Your task to perform on an android device: change text size in settings app Image 0: 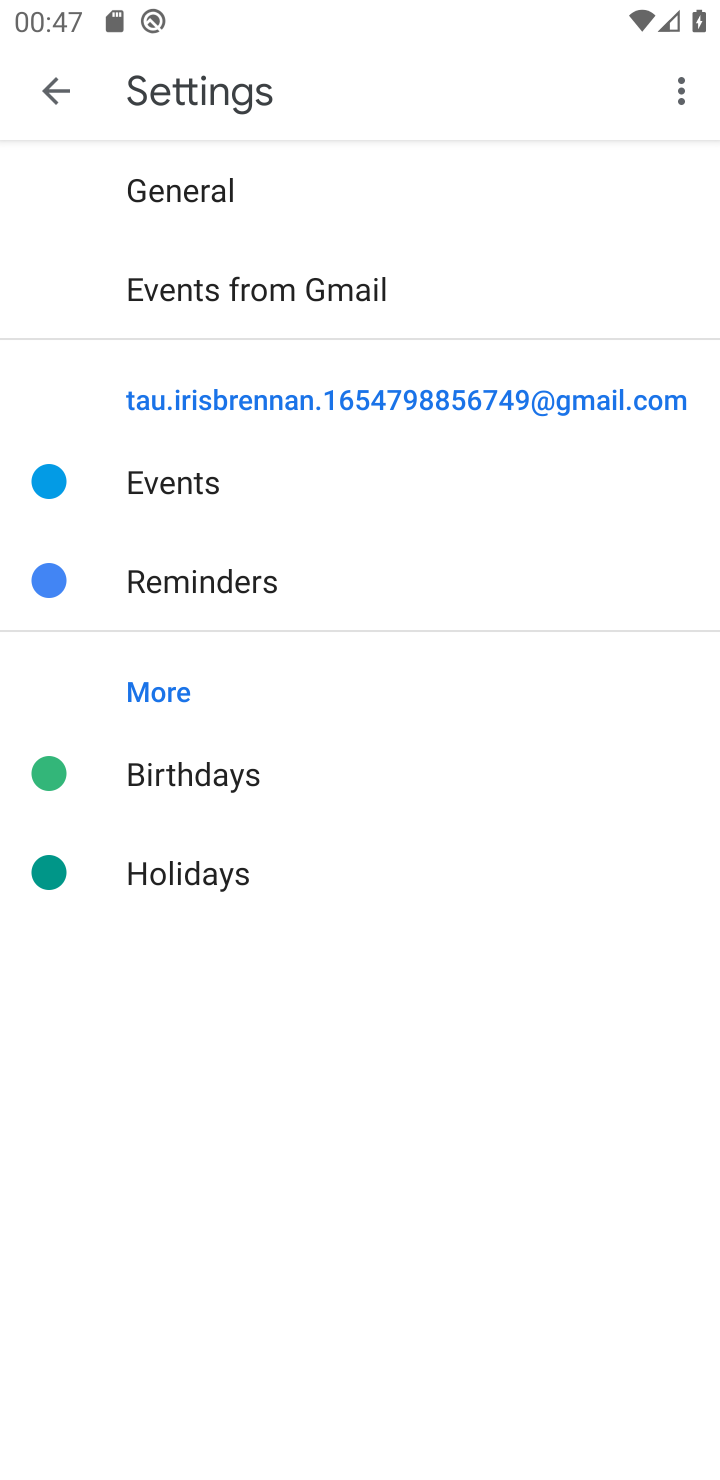
Step 0: press home button
Your task to perform on an android device: change text size in settings app Image 1: 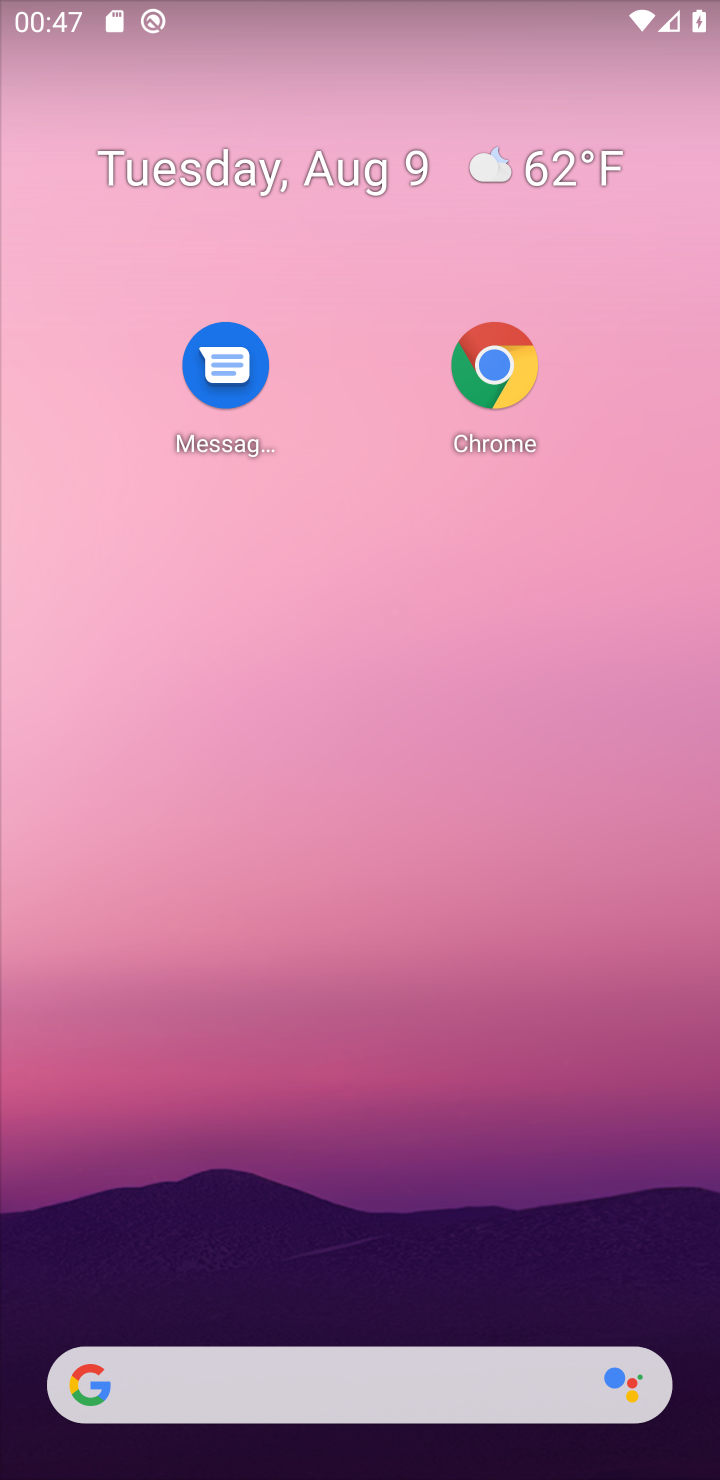
Step 1: drag from (317, 1153) to (376, 415)
Your task to perform on an android device: change text size in settings app Image 2: 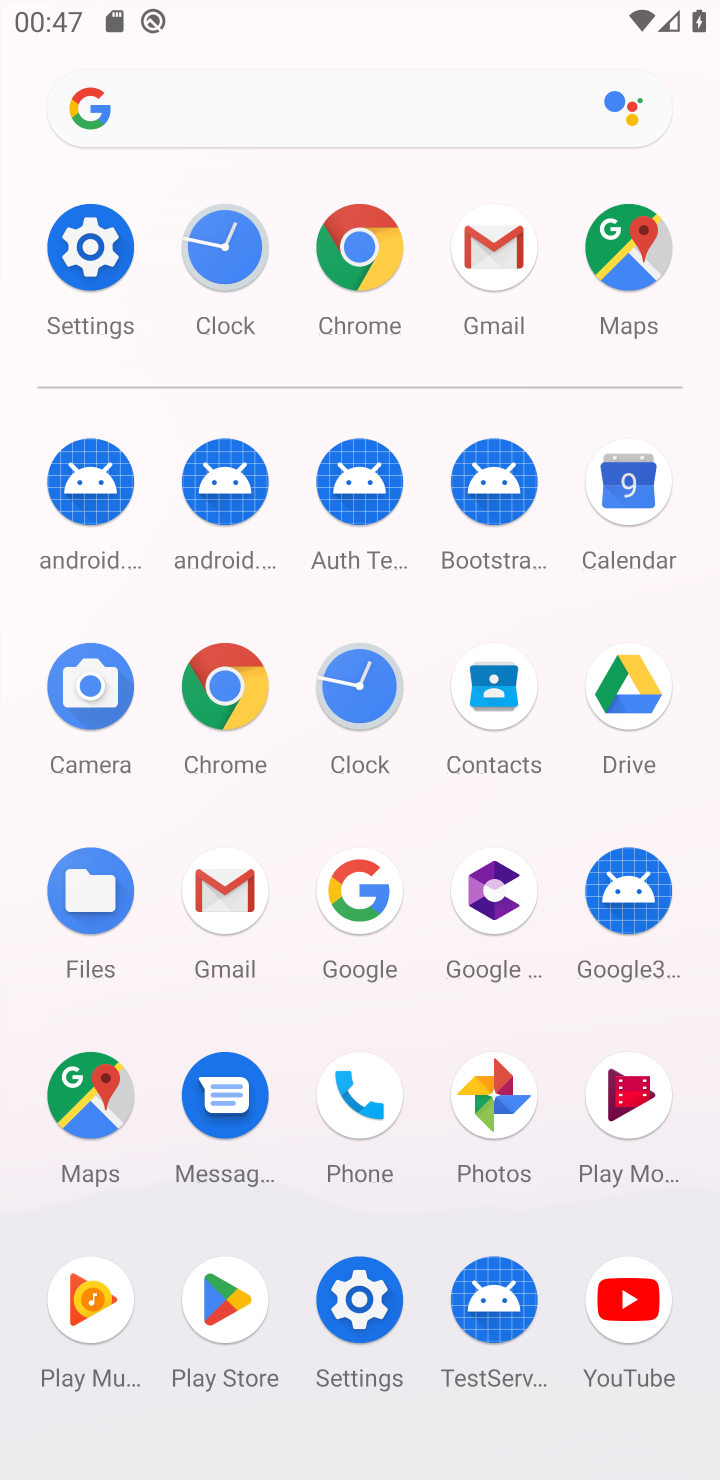
Step 2: click (77, 238)
Your task to perform on an android device: change text size in settings app Image 3: 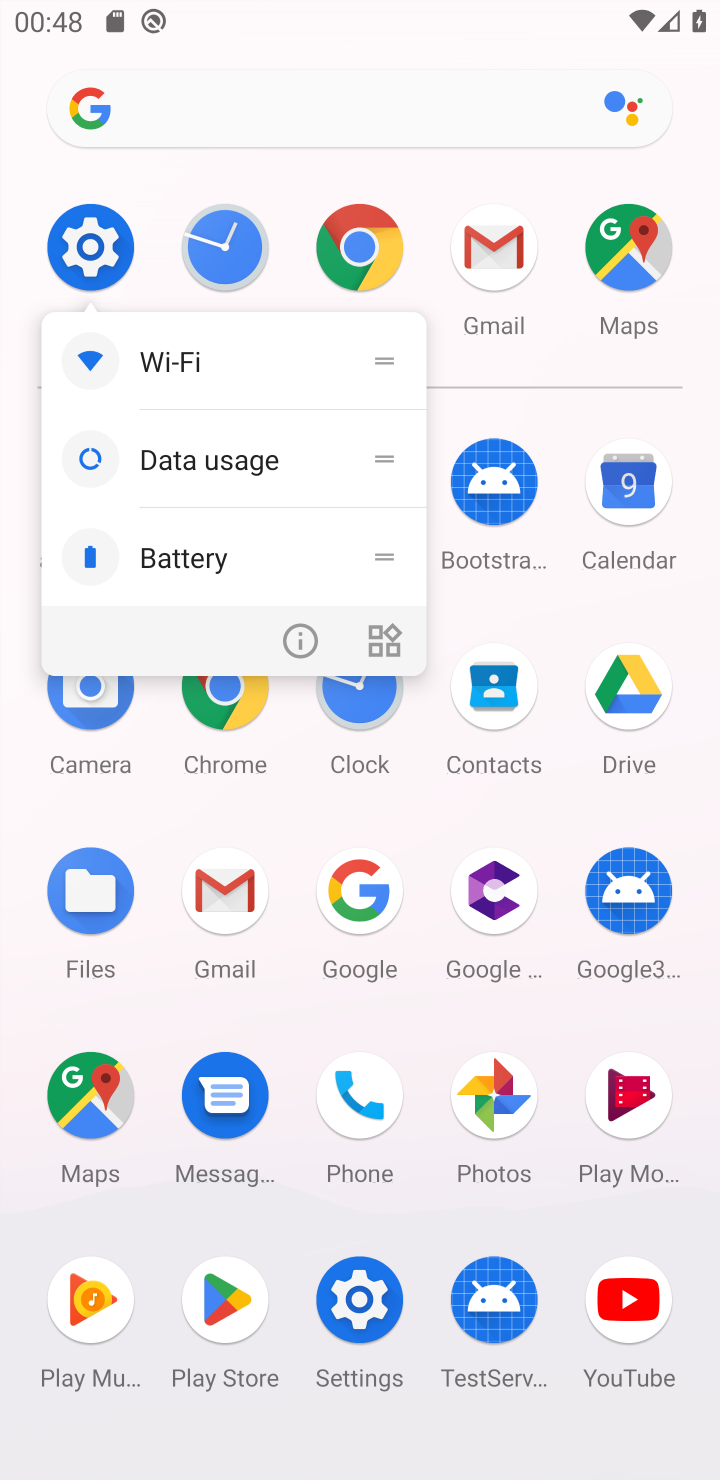
Step 3: click (99, 246)
Your task to perform on an android device: change text size in settings app Image 4: 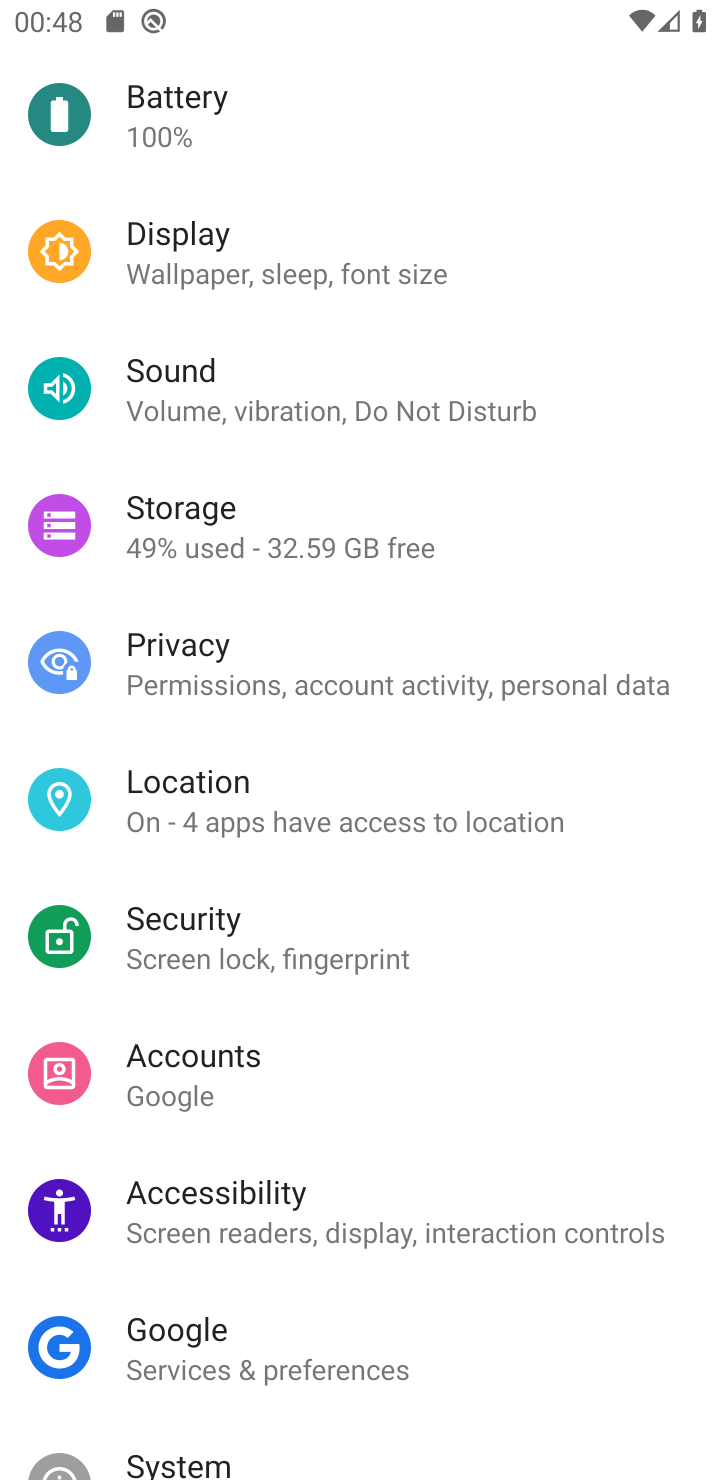
Step 4: drag from (187, 1298) to (256, 770)
Your task to perform on an android device: change text size in settings app Image 5: 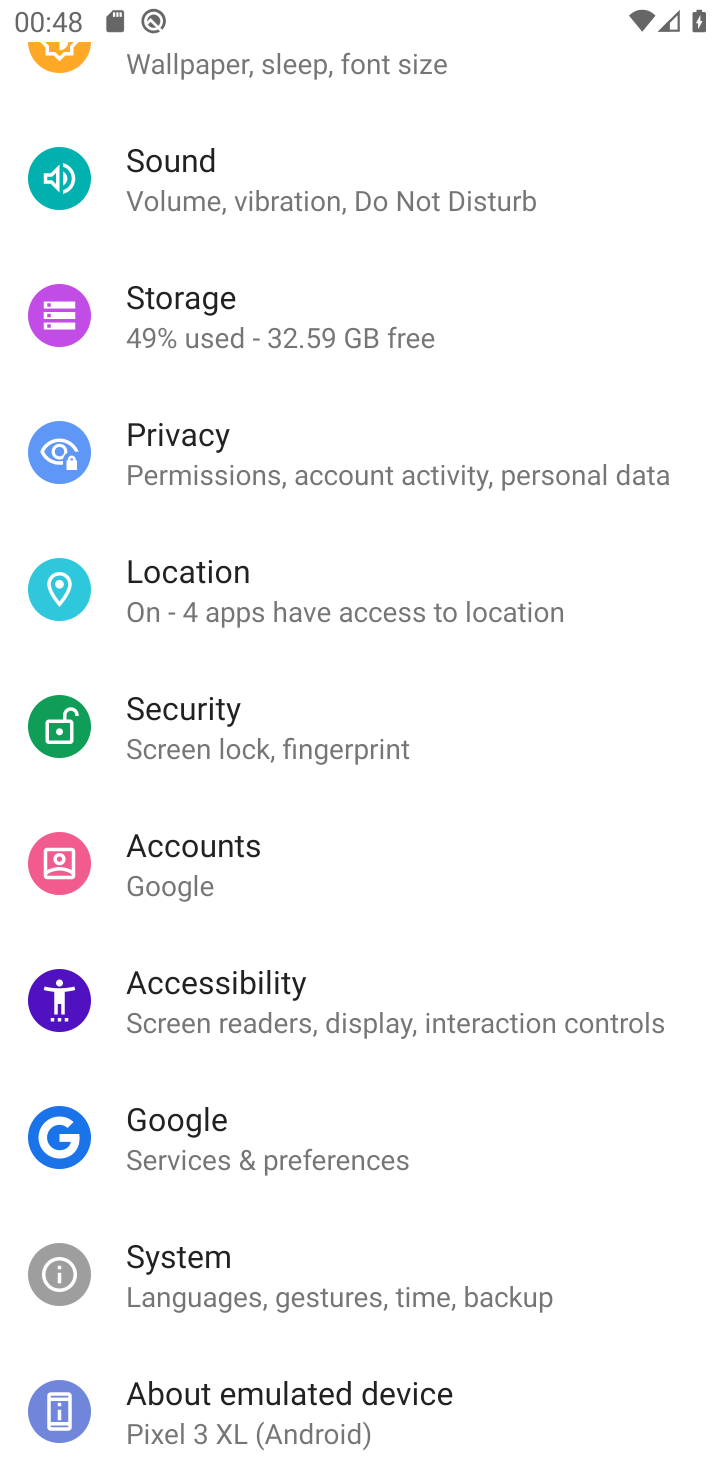
Step 5: click (189, 951)
Your task to perform on an android device: change text size in settings app Image 6: 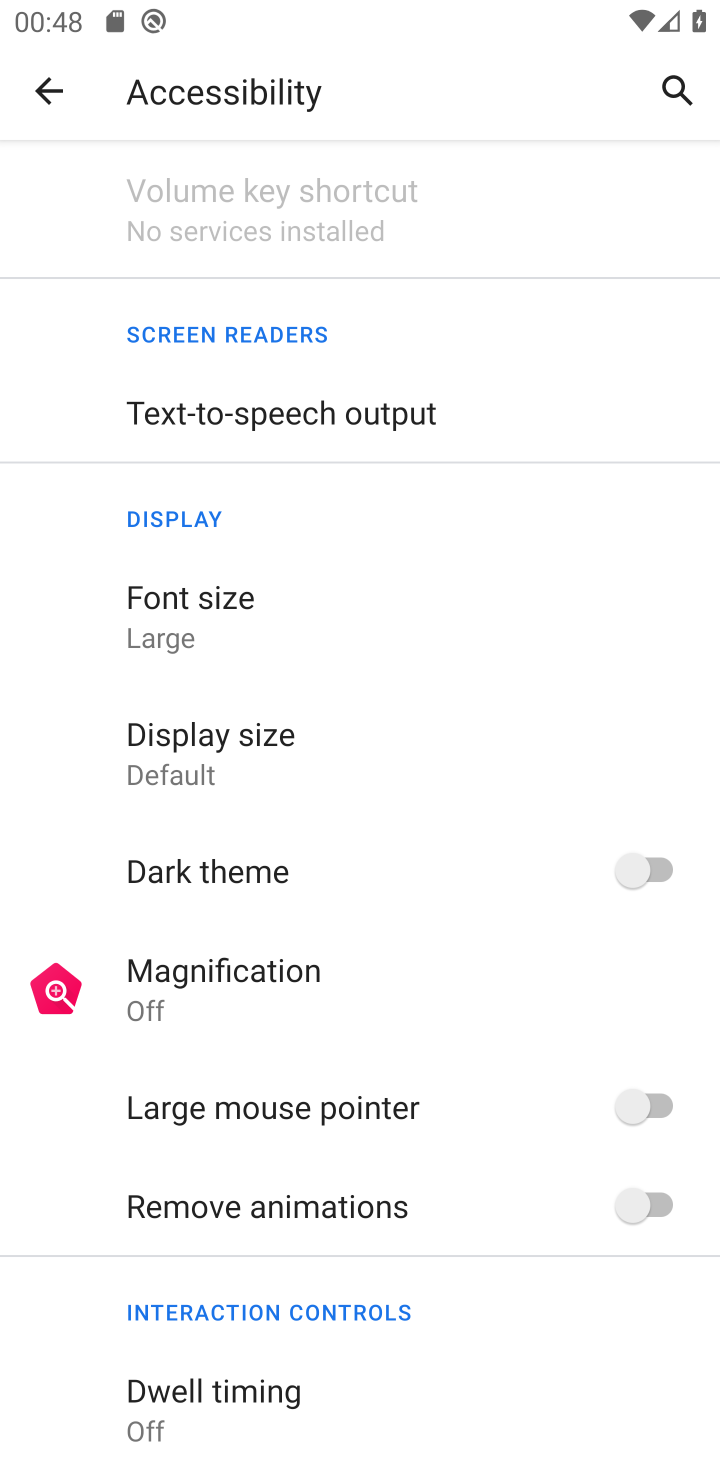
Step 6: click (179, 581)
Your task to perform on an android device: change text size in settings app Image 7: 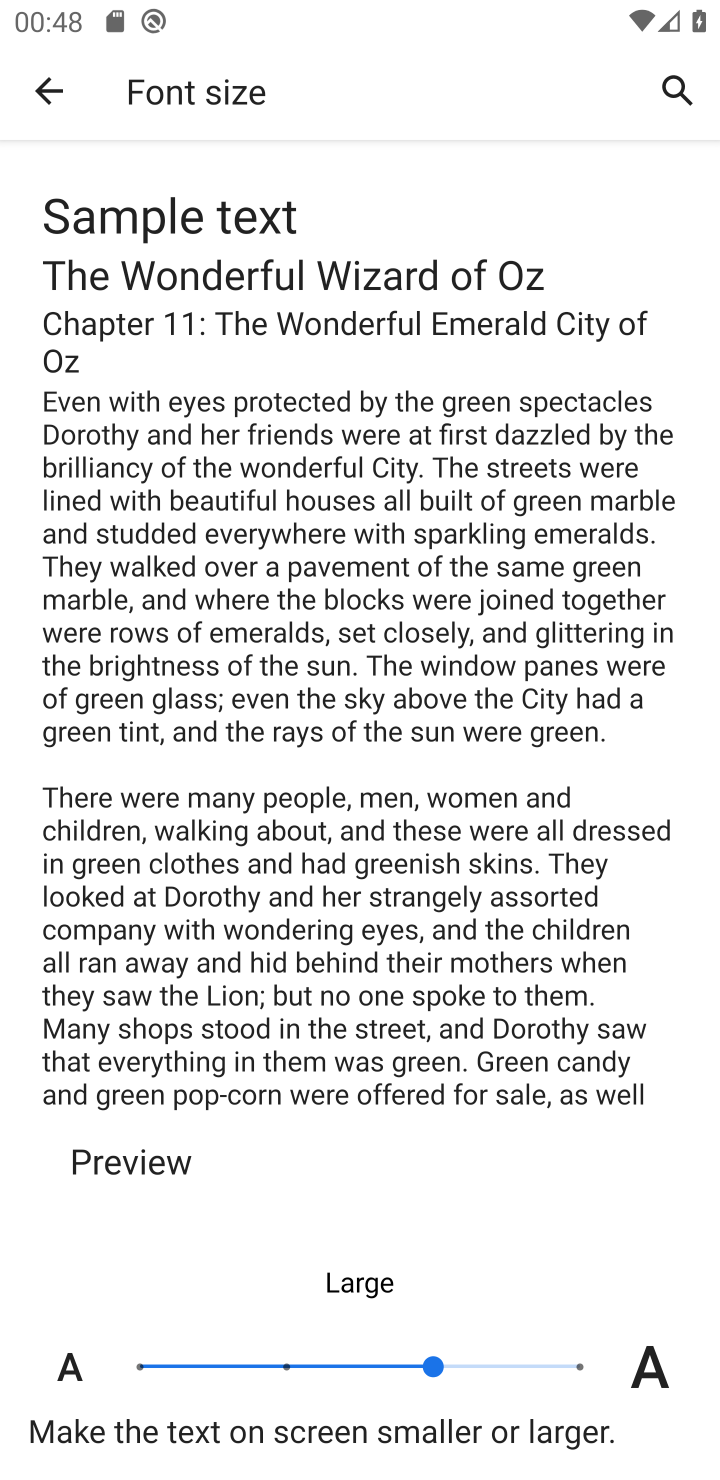
Step 7: click (594, 1361)
Your task to perform on an android device: change text size in settings app Image 8: 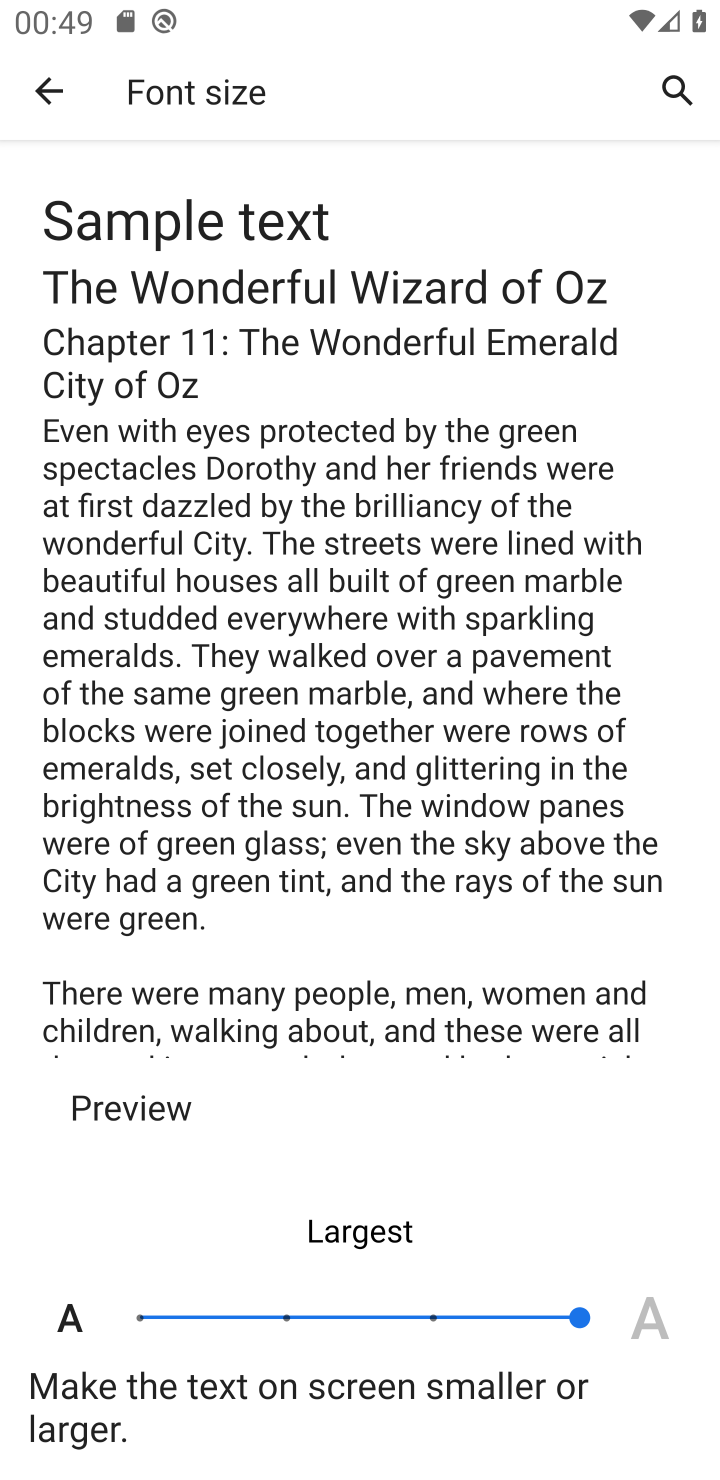
Step 8: task complete